Your task to perform on an android device: Do I have any events today? Image 0: 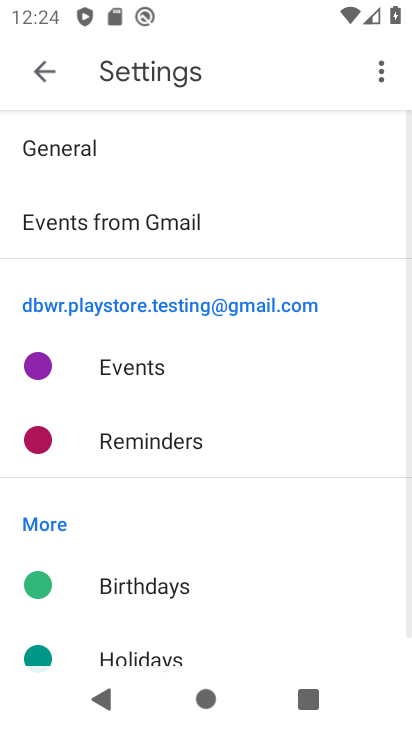
Step 0: press home button
Your task to perform on an android device: Do I have any events today? Image 1: 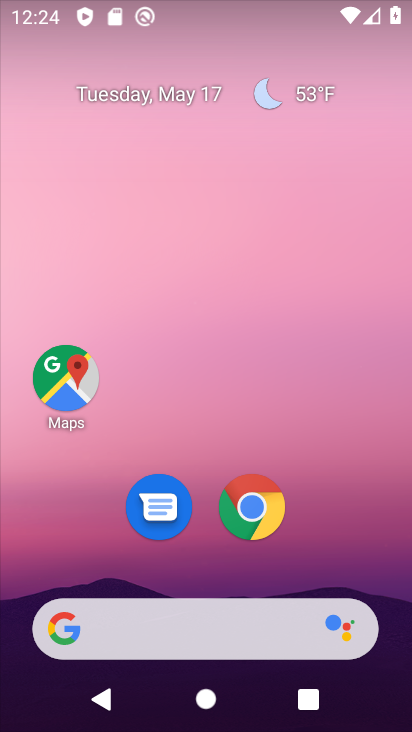
Step 1: drag from (216, 569) to (158, 1)
Your task to perform on an android device: Do I have any events today? Image 2: 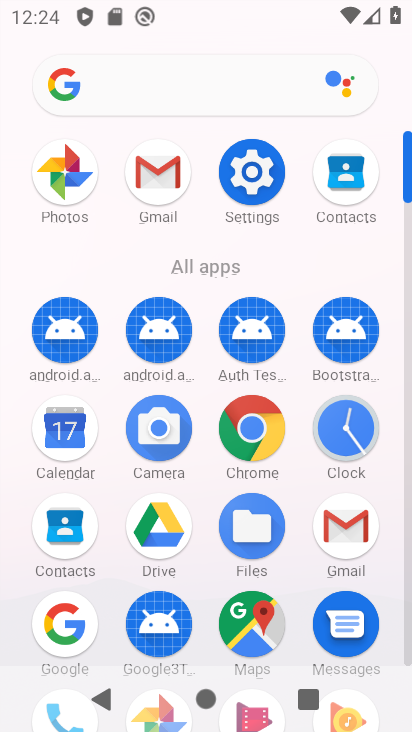
Step 2: click (65, 433)
Your task to perform on an android device: Do I have any events today? Image 3: 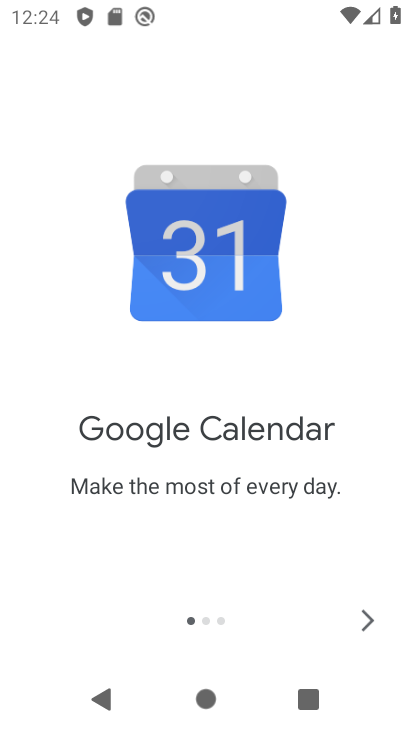
Step 3: click (367, 620)
Your task to perform on an android device: Do I have any events today? Image 4: 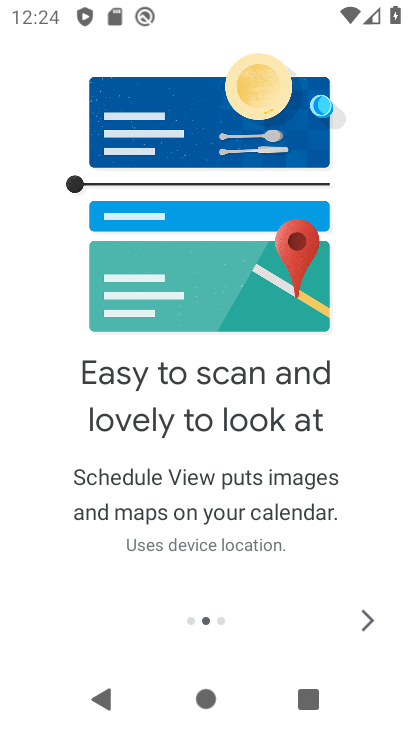
Step 4: click (367, 620)
Your task to perform on an android device: Do I have any events today? Image 5: 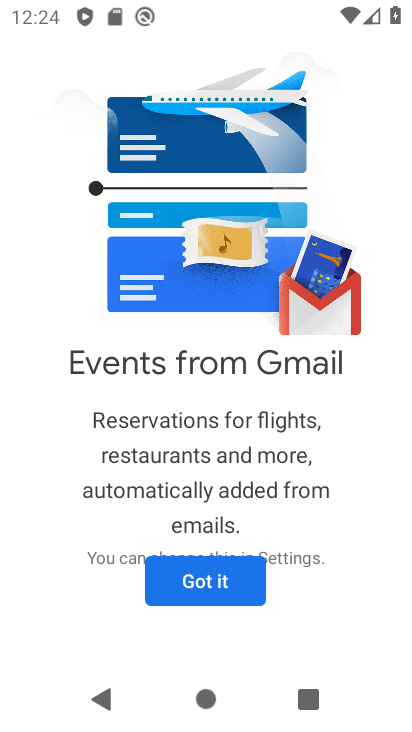
Step 5: click (213, 582)
Your task to perform on an android device: Do I have any events today? Image 6: 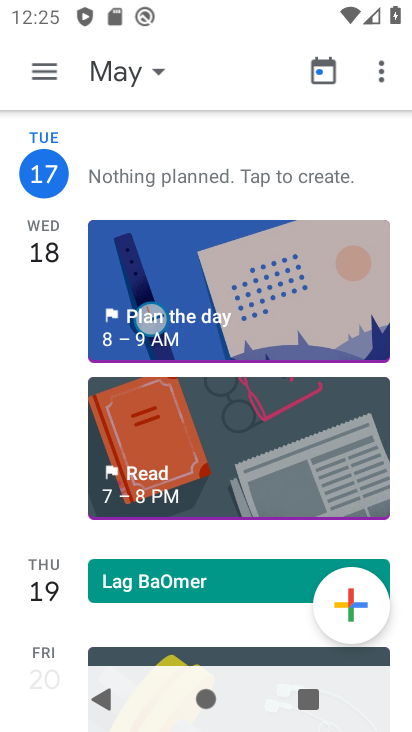
Step 6: click (105, 72)
Your task to perform on an android device: Do I have any events today? Image 7: 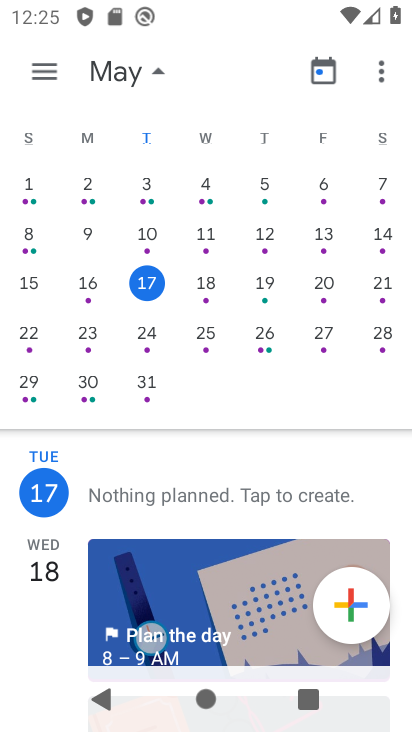
Step 7: click (159, 276)
Your task to perform on an android device: Do I have any events today? Image 8: 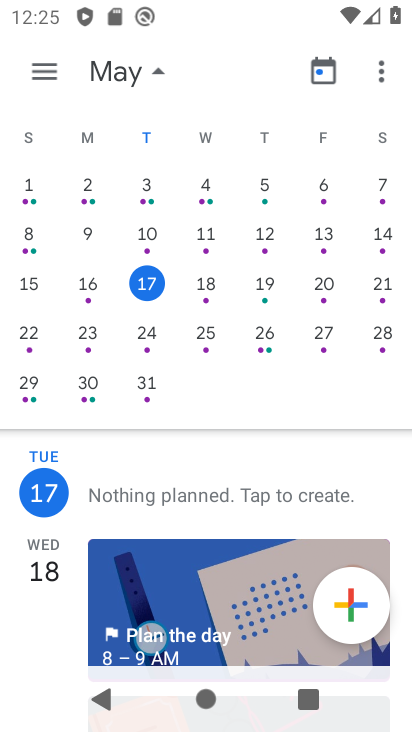
Step 8: task complete